Your task to perform on an android device: stop showing notifications on the lock screen Image 0: 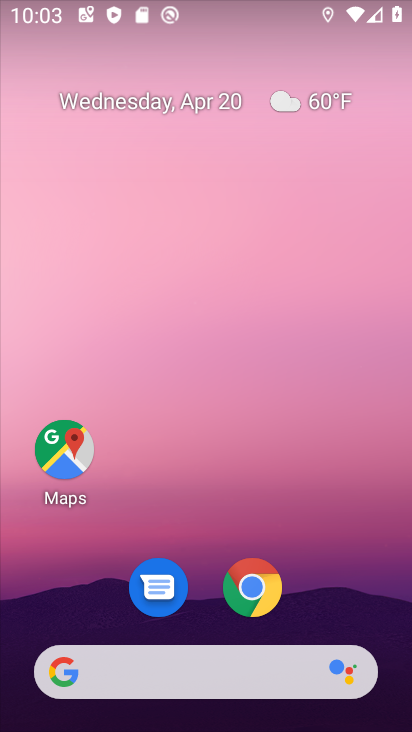
Step 0: drag from (345, 521) to (266, 144)
Your task to perform on an android device: stop showing notifications on the lock screen Image 1: 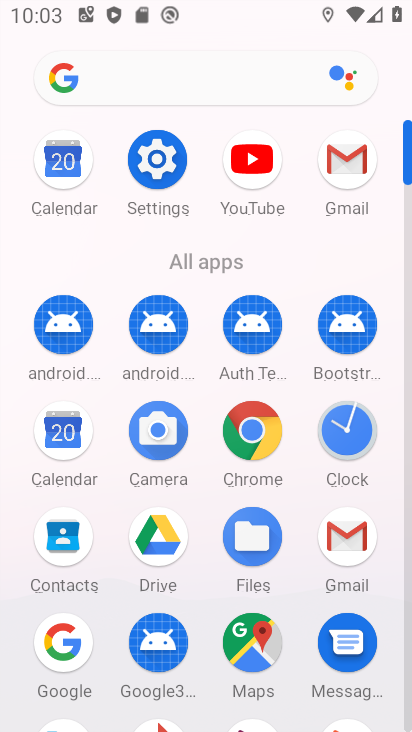
Step 1: click (161, 178)
Your task to perform on an android device: stop showing notifications on the lock screen Image 2: 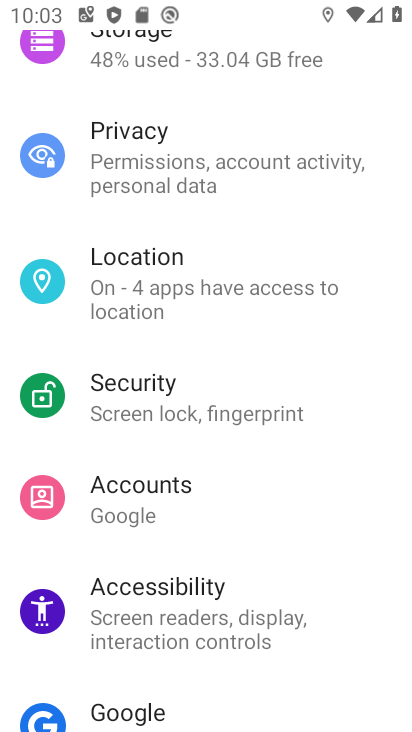
Step 2: drag from (349, 130) to (324, 522)
Your task to perform on an android device: stop showing notifications on the lock screen Image 3: 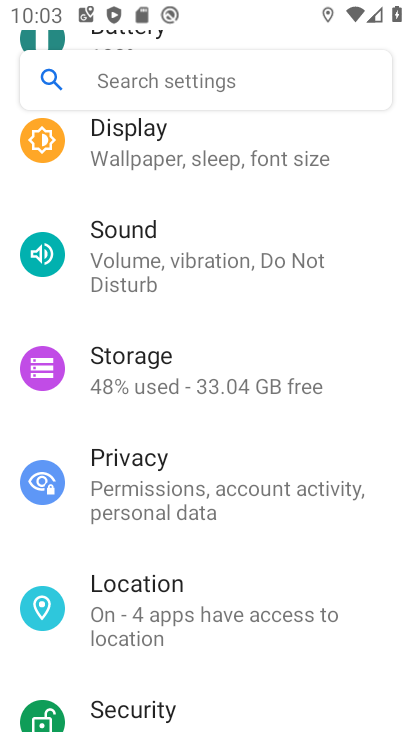
Step 3: drag from (328, 166) to (298, 476)
Your task to perform on an android device: stop showing notifications on the lock screen Image 4: 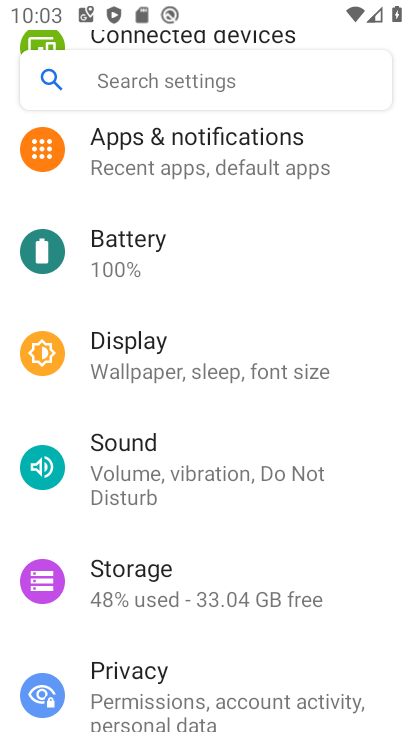
Step 4: click (226, 159)
Your task to perform on an android device: stop showing notifications on the lock screen Image 5: 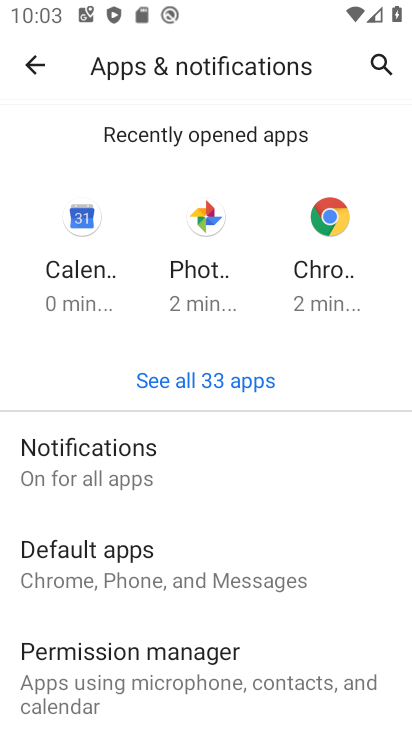
Step 5: click (84, 470)
Your task to perform on an android device: stop showing notifications on the lock screen Image 6: 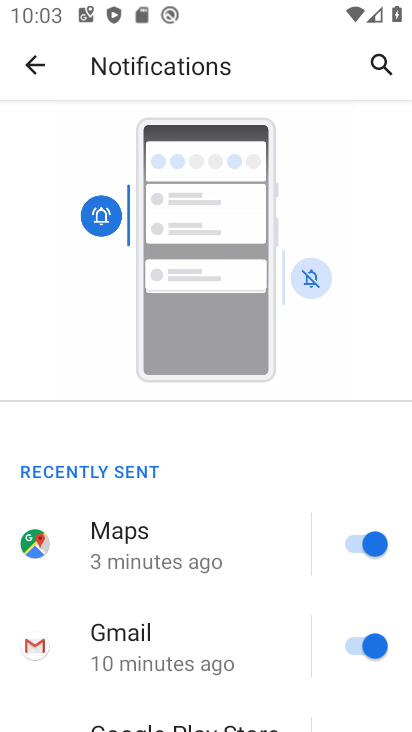
Step 6: drag from (181, 652) to (141, 324)
Your task to perform on an android device: stop showing notifications on the lock screen Image 7: 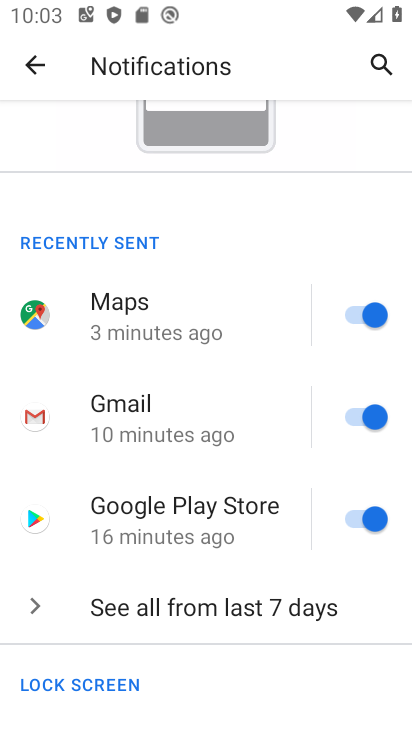
Step 7: drag from (152, 628) to (155, 372)
Your task to perform on an android device: stop showing notifications on the lock screen Image 8: 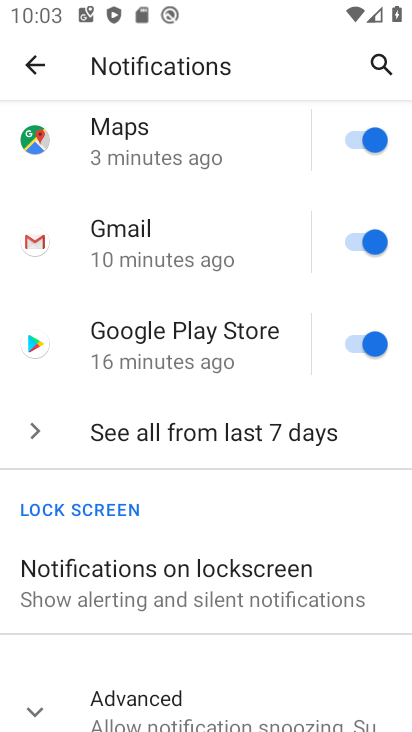
Step 8: click (137, 570)
Your task to perform on an android device: stop showing notifications on the lock screen Image 9: 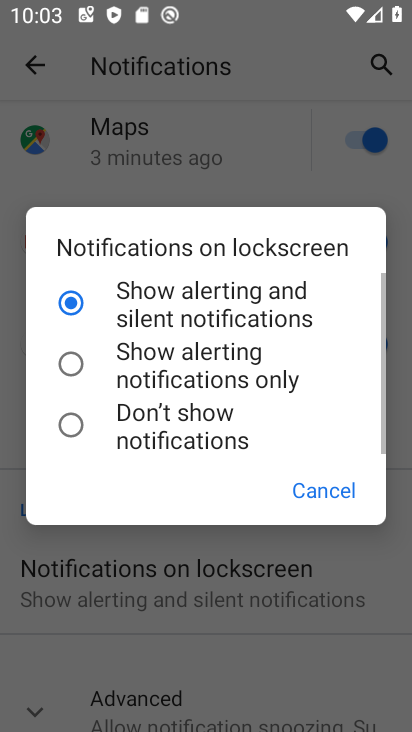
Step 9: click (129, 432)
Your task to perform on an android device: stop showing notifications on the lock screen Image 10: 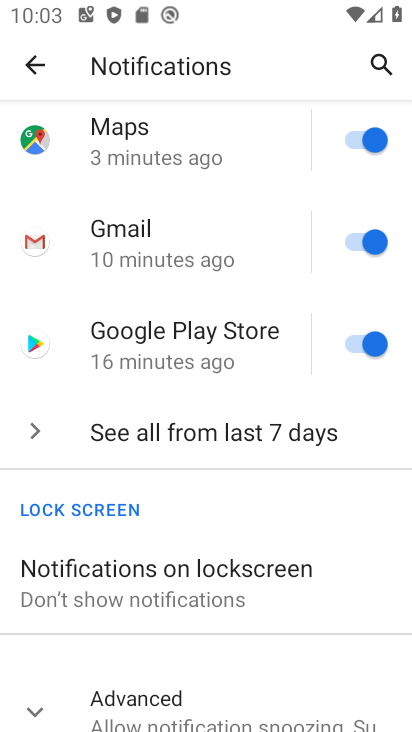
Step 10: task complete